Your task to perform on an android device: turn off notifications settings in the gmail app Image 0: 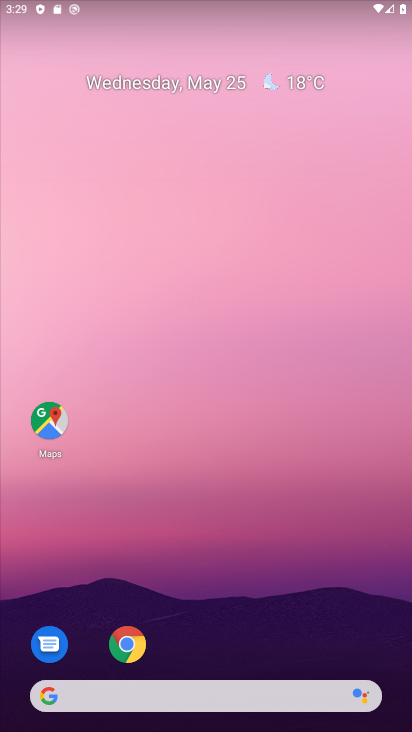
Step 0: drag from (260, 614) to (236, 109)
Your task to perform on an android device: turn off notifications settings in the gmail app Image 1: 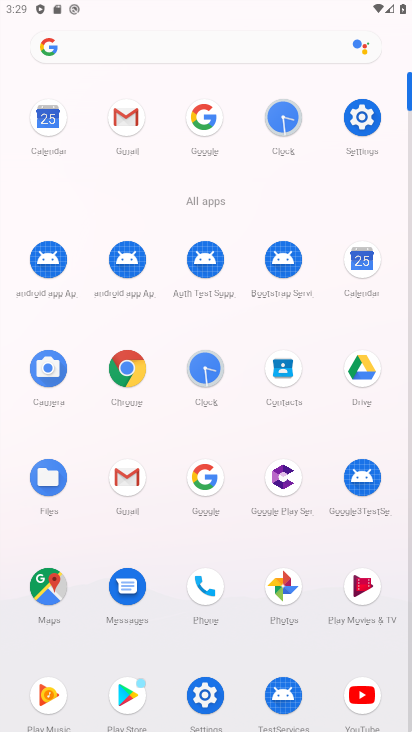
Step 1: click (124, 118)
Your task to perform on an android device: turn off notifications settings in the gmail app Image 2: 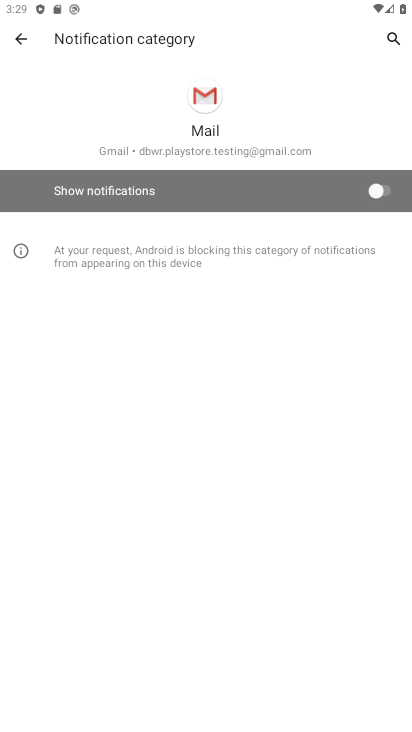
Step 2: task complete